Your task to perform on an android device: turn off notifications settings in the gmail app Image 0: 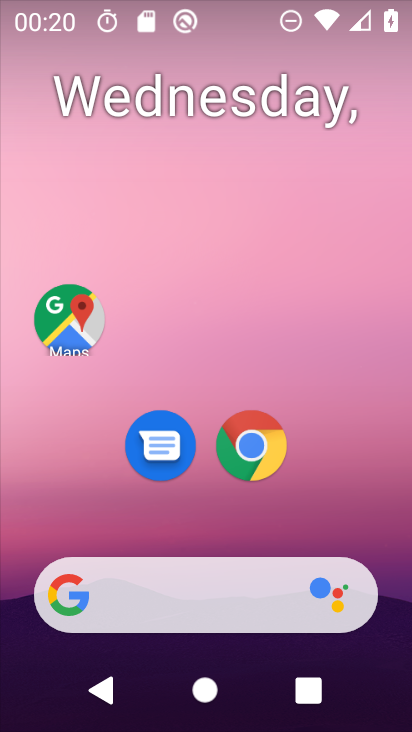
Step 0: drag from (299, 523) to (356, 0)
Your task to perform on an android device: turn off notifications settings in the gmail app Image 1: 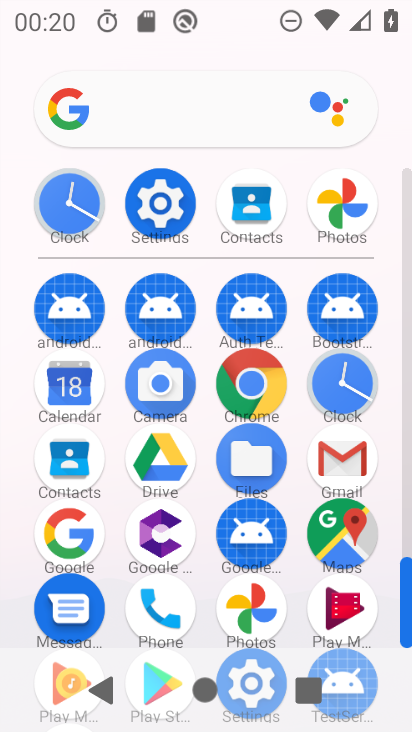
Step 1: click (340, 460)
Your task to perform on an android device: turn off notifications settings in the gmail app Image 2: 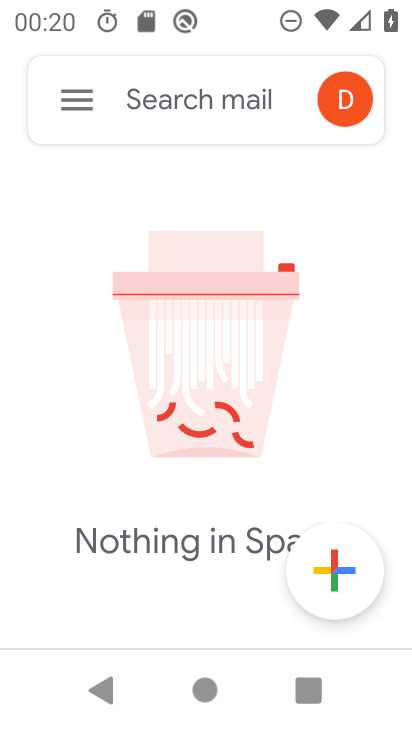
Step 2: click (90, 105)
Your task to perform on an android device: turn off notifications settings in the gmail app Image 3: 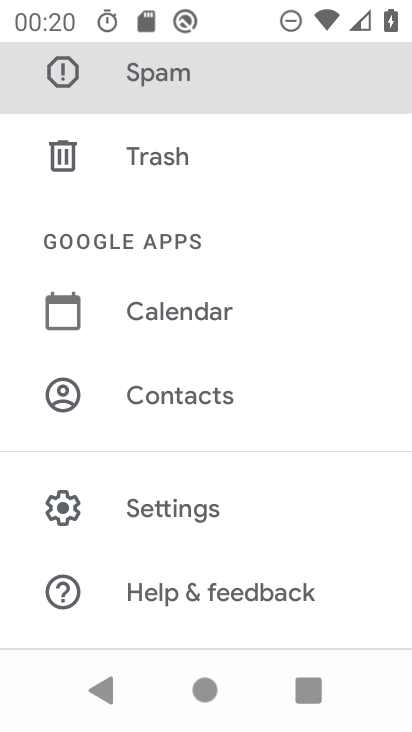
Step 3: click (217, 501)
Your task to perform on an android device: turn off notifications settings in the gmail app Image 4: 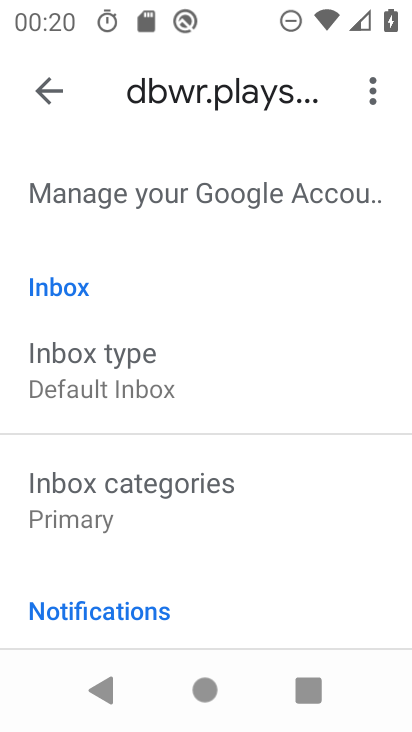
Step 4: drag from (185, 503) to (272, 217)
Your task to perform on an android device: turn off notifications settings in the gmail app Image 5: 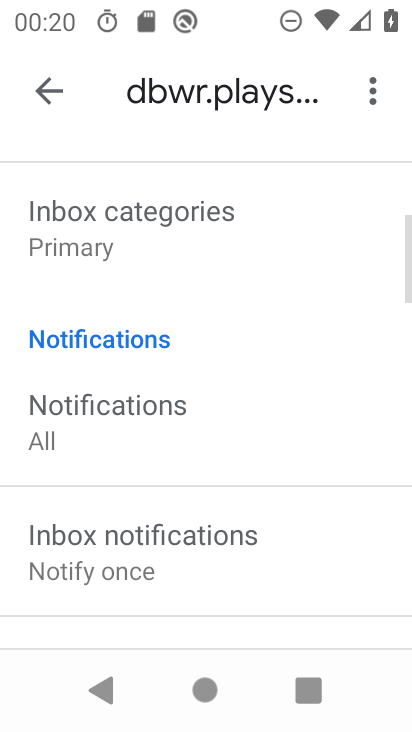
Step 5: drag from (241, 552) to (349, 351)
Your task to perform on an android device: turn off notifications settings in the gmail app Image 6: 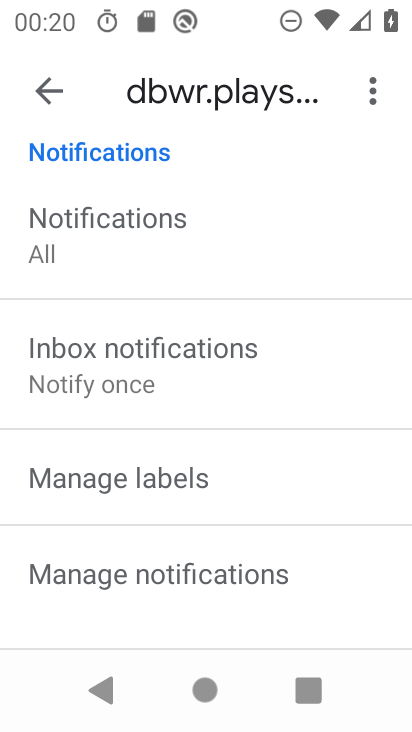
Step 6: click (196, 563)
Your task to perform on an android device: turn off notifications settings in the gmail app Image 7: 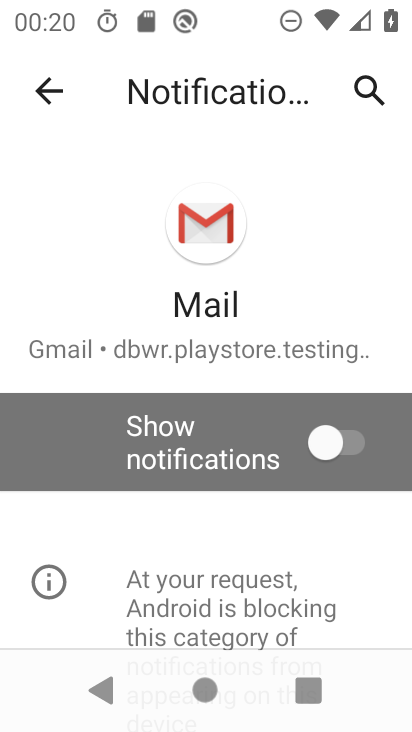
Step 7: task complete